Your task to perform on an android device: What's the weather? Image 0: 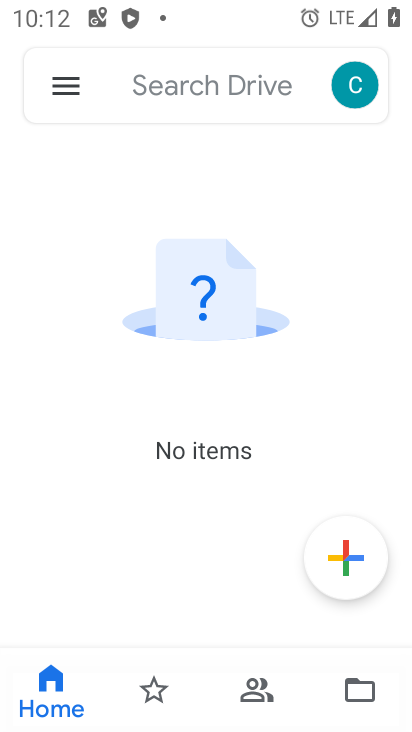
Step 0: press home button
Your task to perform on an android device: What's the weather? Image 1: 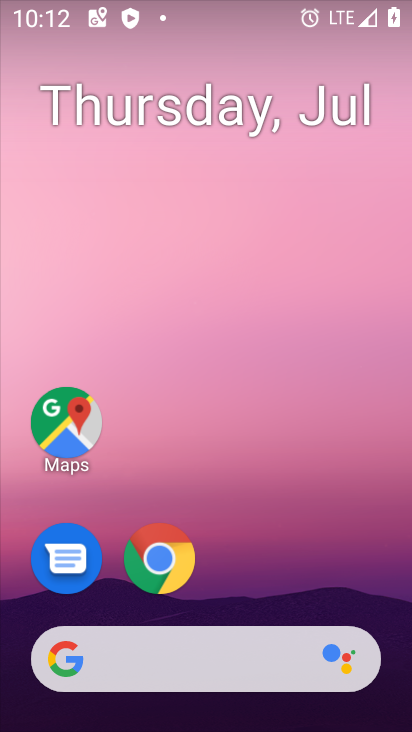
Step 1: click (211, 659)
Your task to perform on an android device: What's the weather? Image 2: 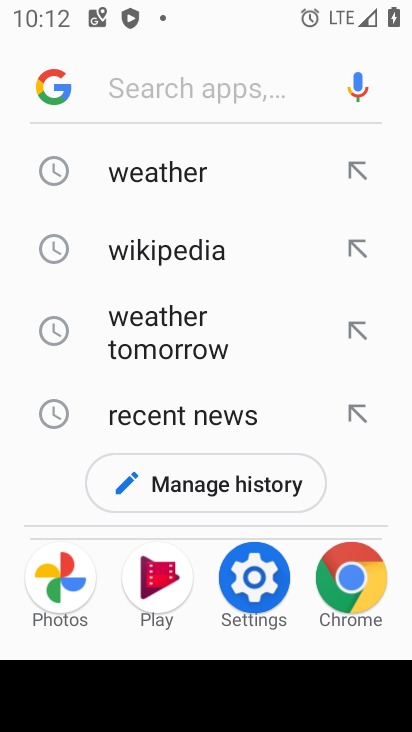
Step 2: click (247, 175)
Your task to perform on an android device: What's the weather? Image 3: 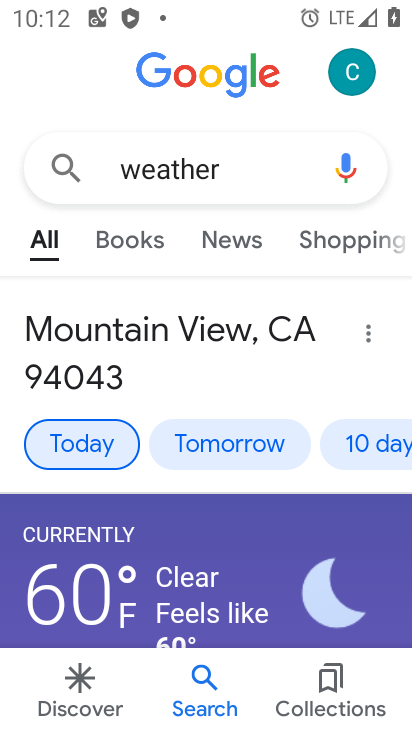
Step 3: task complete